Your task to perform on an android device: turn off javascript in the chrome app Image 0: 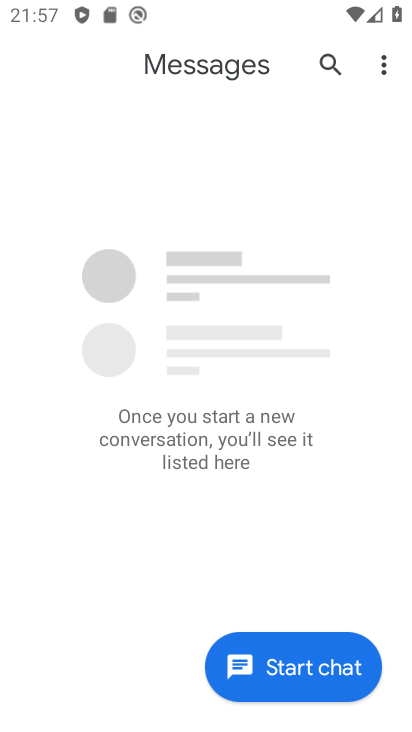
Step 0: press home button
Your task to perform on an android device: turn off javascript in the chrome app Image 1: 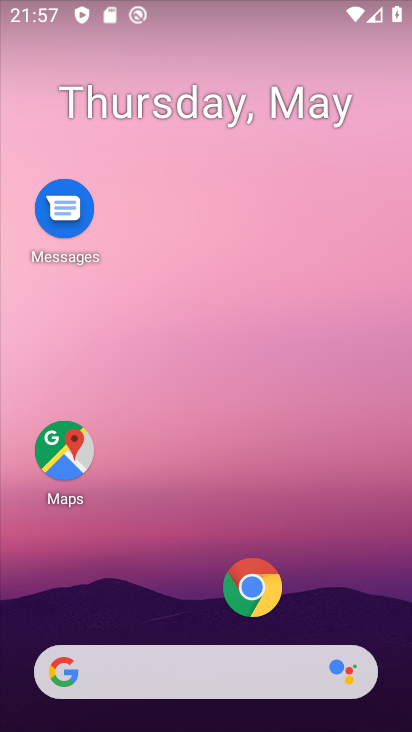
Step 1: click (245, 598)
Your task to perform on an android device: turn off javascript in the chrome app Image 2: 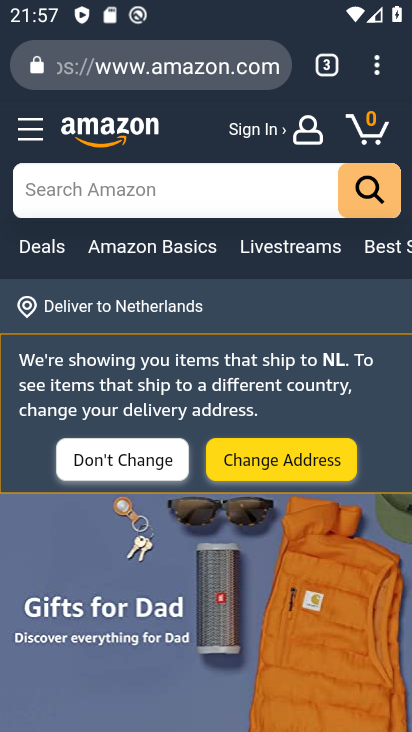
Step 2: drag from (375, 66) to (165, 627)
Your task to perform on an android device: turn off javascript in the chrome app Image 3: 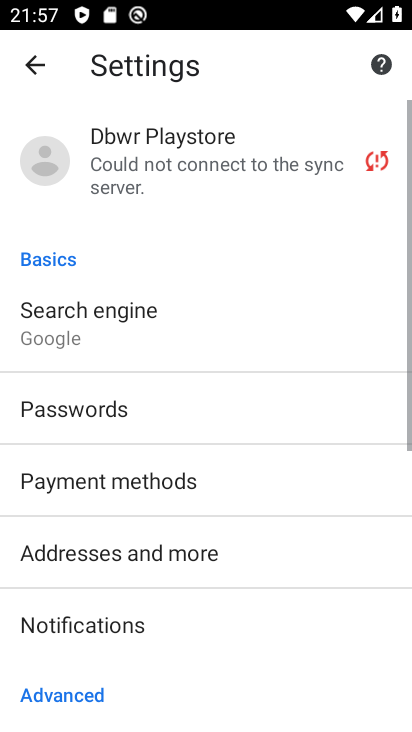
Step 3: drag from (118, 613) to (117, 111)
Your task to perform on an android device: turn off javascript in the chrome app Image 4: 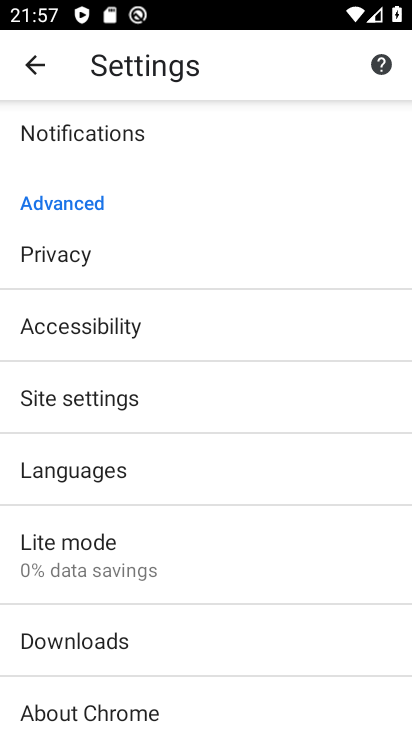
Step 4: click (89, 408)
Your task to perform on an android device: turn off javascript in the chrome app Image 5: 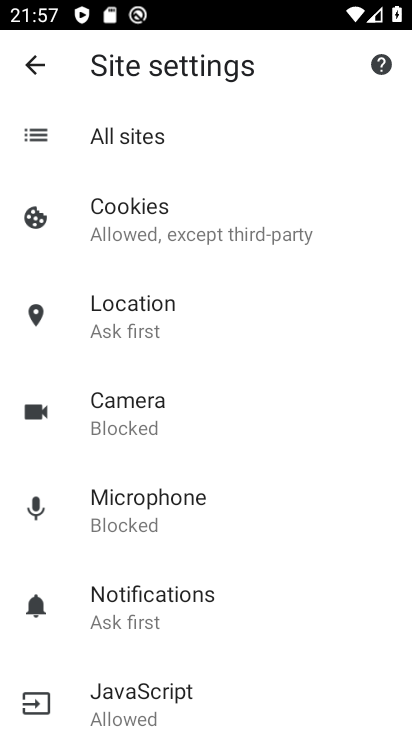
Step 5: click (133, 694)
Your task to perform on an android device: turn off javascript in the chrome app Image 6: 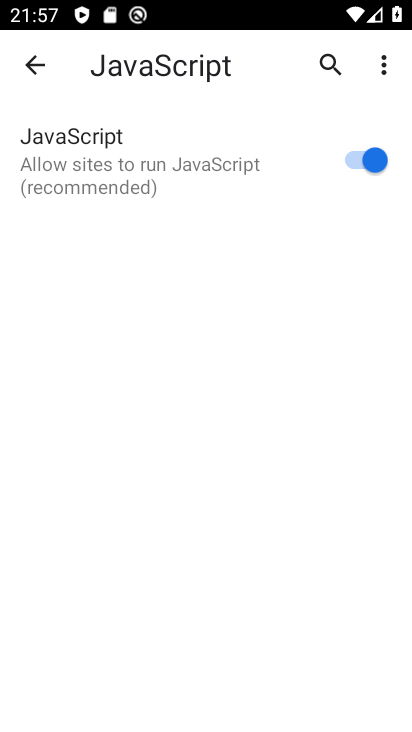
Step 6: click (373, 170)
Your task to perform on an android device: turn off javascript in the chrome app Image 7: 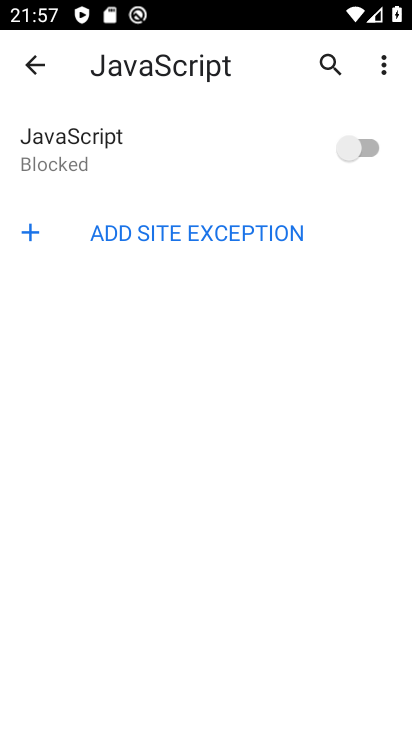
Step 7: task complete